Your task to perform on an android device: change the clock style Image 0: 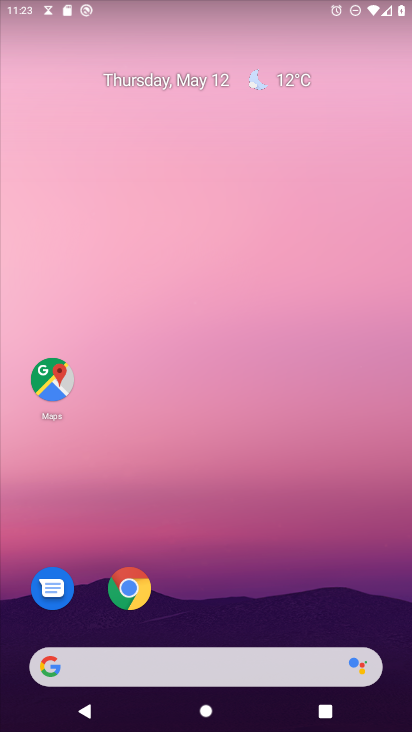
Step 0: drag from (237, 569) to (321, 1)
Your task to perform on an android device: change the clock style Image 1: 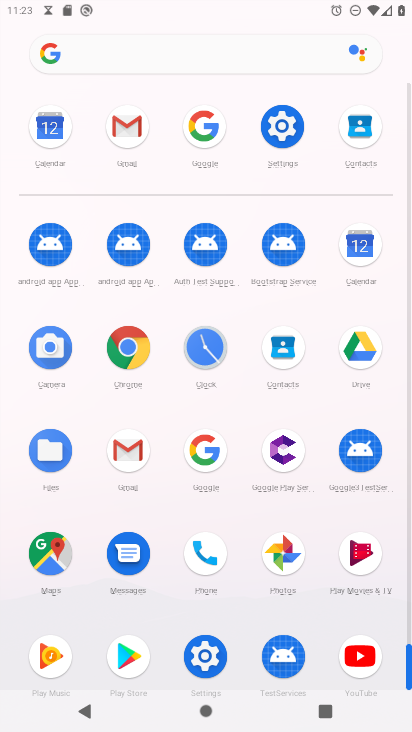
Step 1: click (203, 350)
Your task to perform on an android device: change the clock style Image 2: 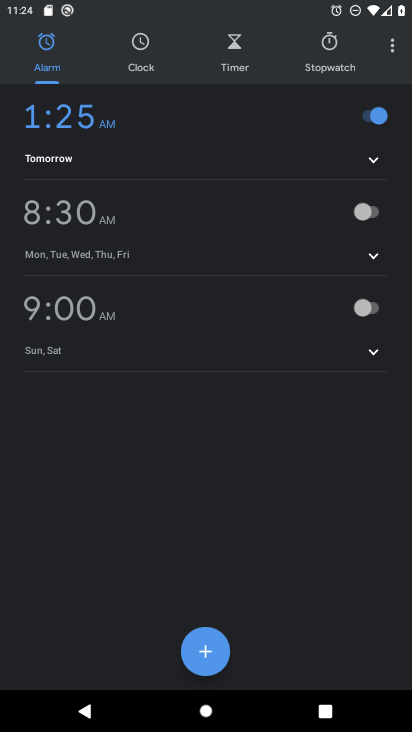
Step 2: click (394, 50)
Your task to perform on an android device: change the clock style Image 3: 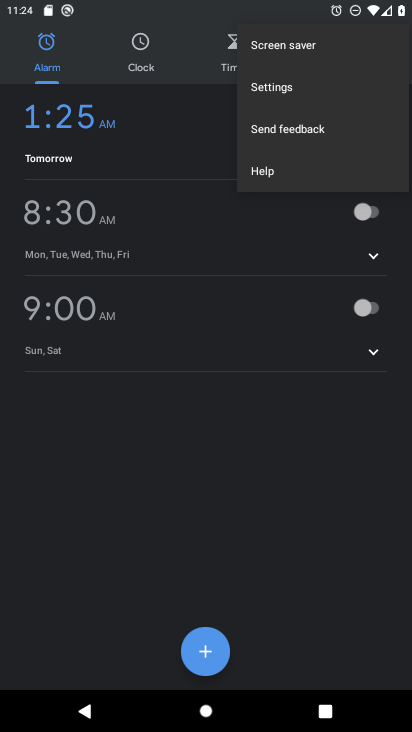
Step 3: click (281, 89)
Your task to perform on an android device: change the clock style Image 4: 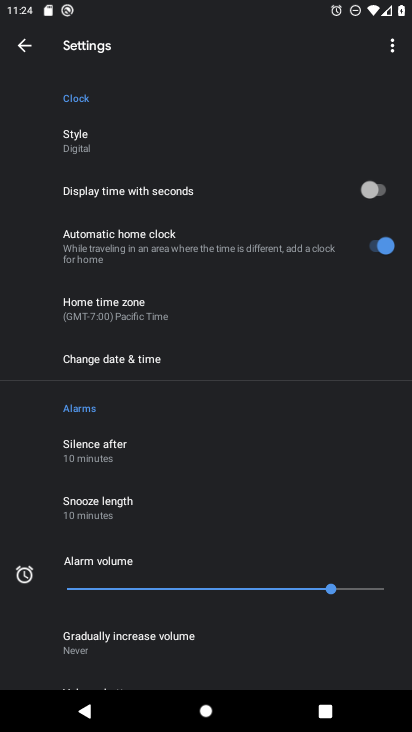
Step 4: click (85, 147)
Your task to perform on an android device: change the clock style Image 5: 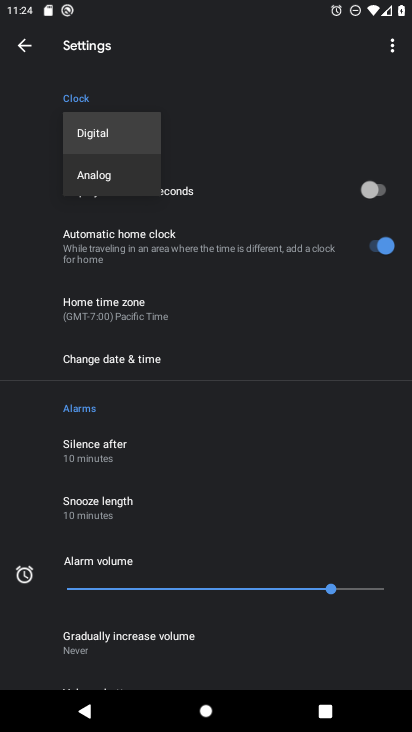
Step 5: click (97, 173)
Your task to perform on an android device: change the clock style Image 6: 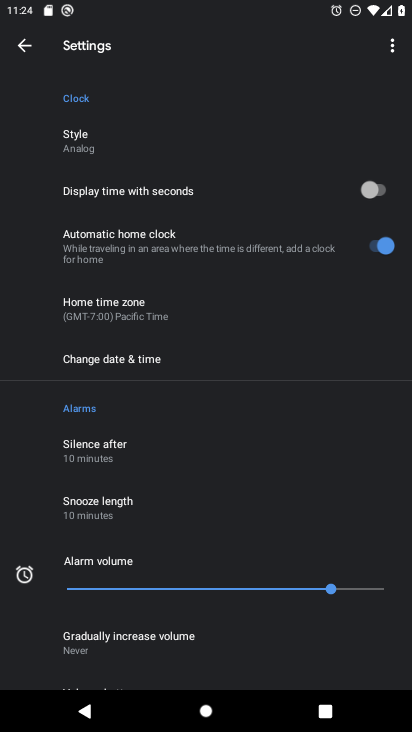
Step 6: task complete